Your task to perform on an android device: check out phone information Image 0: 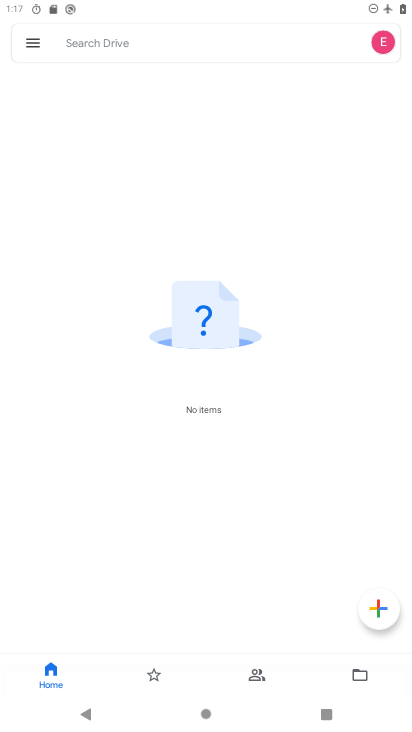
Step 0: press home button
Your task to perform on an android device: check out phone information Image 1: 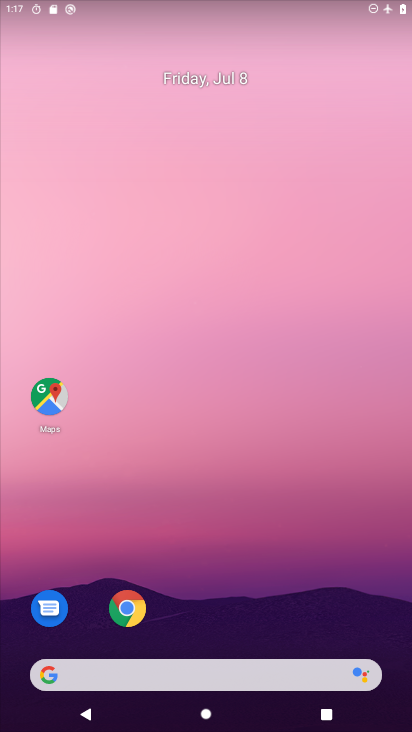
Step 1: drag from (250, 730) to (244, 96)
Your task to perform on an android device: check out phone information Image 2: 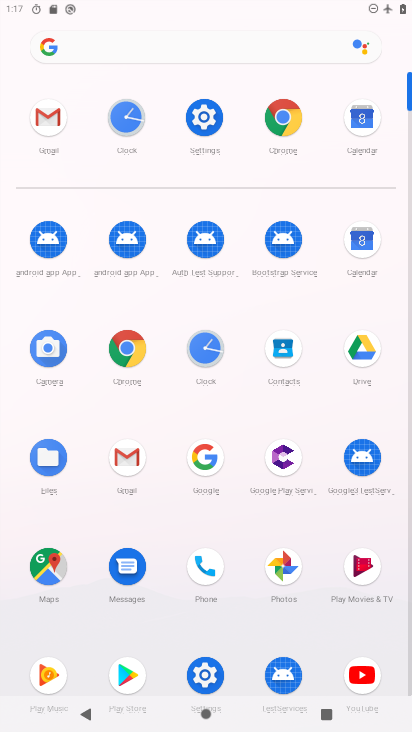
Step 2: click (210, 107)
Your task to perform on an android device: check out phone information Image 3: 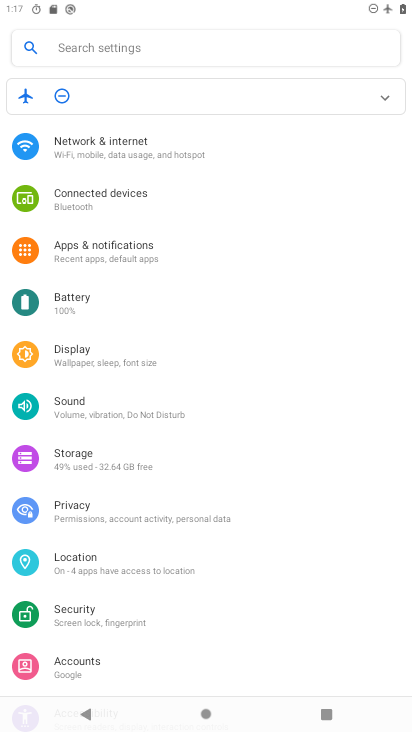
Step 3: drag from (130, 659) to (107, 255)
Your task to perform on an android device: check out phone information Image 4: 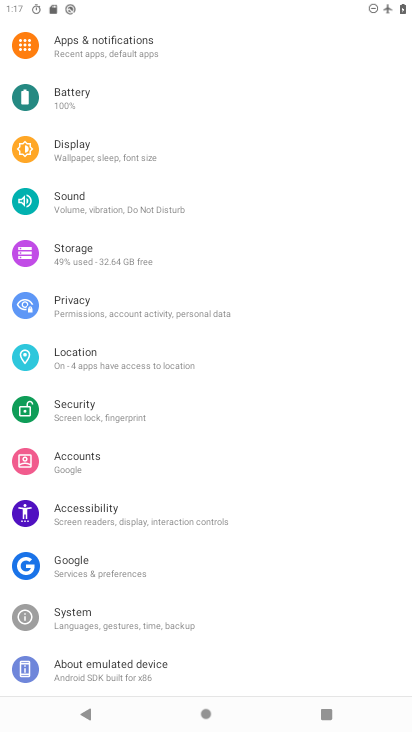
Step 4: click (105, 666)
Your task to perform on an android device: check out phone information Image 5: 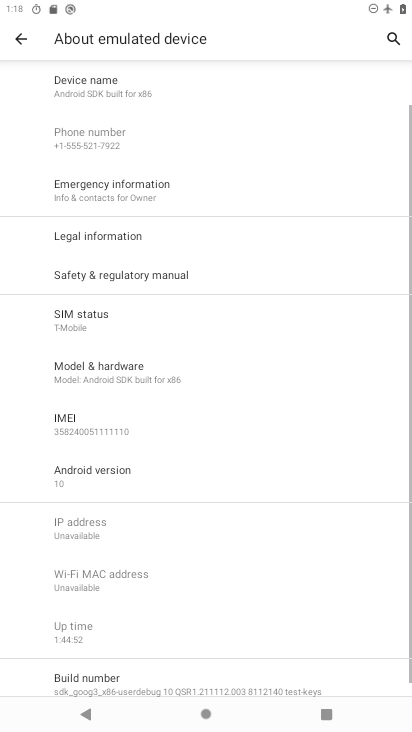
Step 5: task complete